Your task to perform on an android device: read, delete, or share a saved page in the chrome app Image 0: 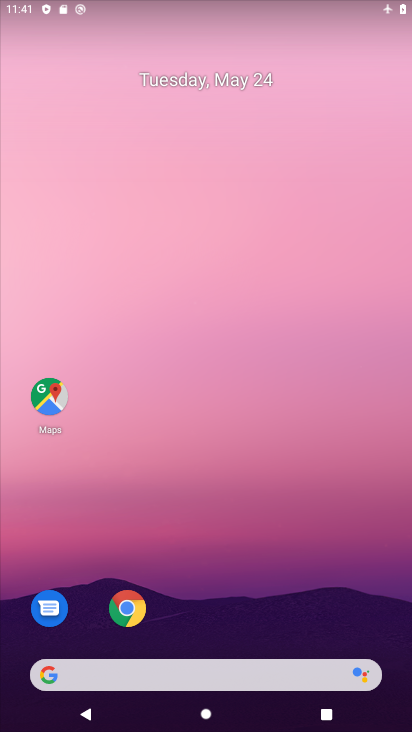
Step 0: click (132, 606)
Your task to perform on an android device: read, delete, or share a saved page in the chrome app Image 1: 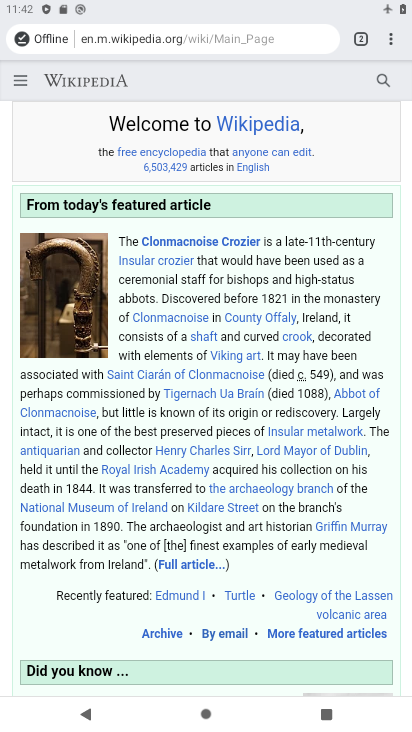
Step 1: click (385, 33)
Your task to perform on an android device: read, delete, or share a saved page in the chrome app Image 2: 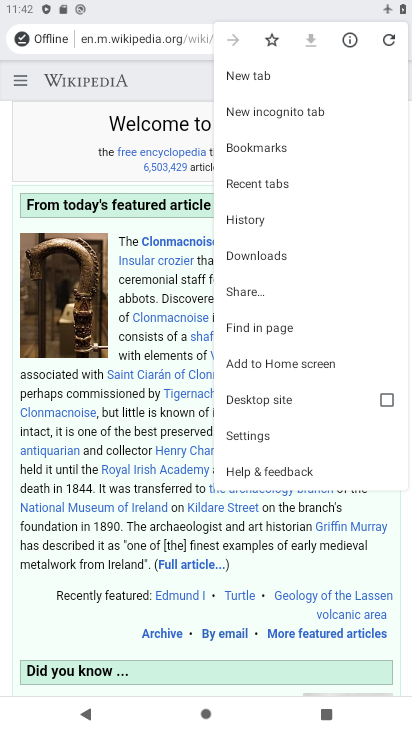
Step 2: click (281, 261)
Your task to perform on an android device: read, delete, or share a saved page in the chrome app Image 3: 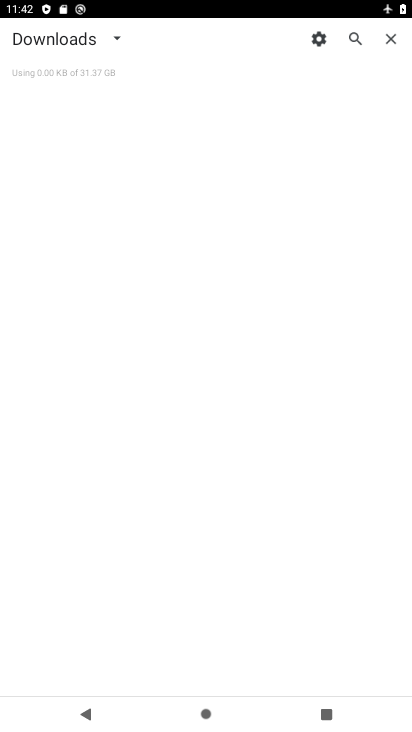
Step 3: task complete